Your task to perform on an android device: toggle pop-ups in chrome Image 0: 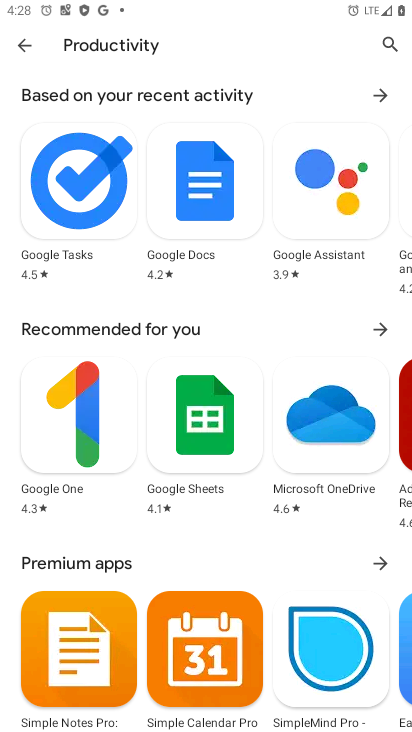
Step 0: press home button
Your task to perform on an android device: toggle pop-ups in chrome Image 1: 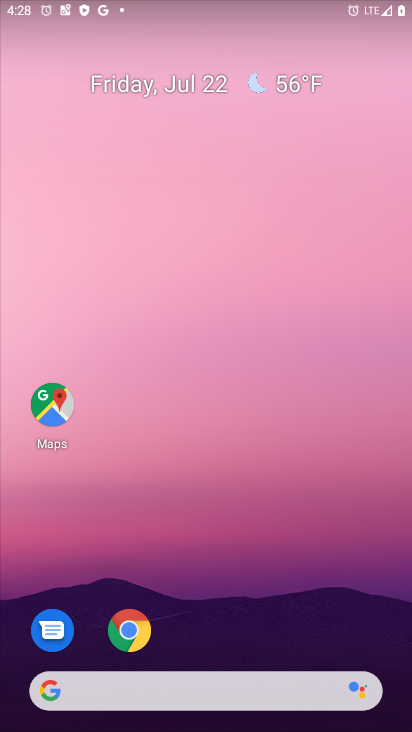
Step 1: click (118, 644)
Your task to perform on an android device: toggle pop-ups in chrome Image 2: 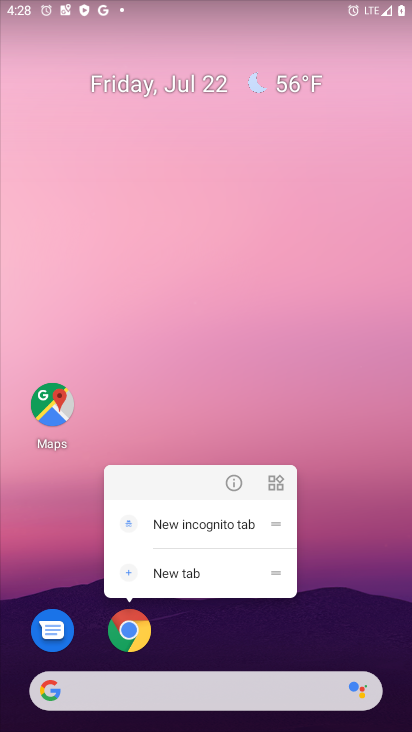
Step 2: click (125, 641)
Your task to perform on an android device: toggle pop-ups in chrome Image 3: 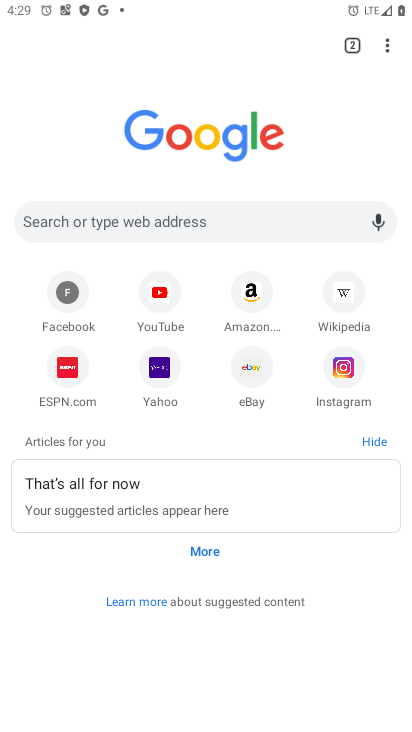
Step 3: drag from (390, 51) to (230, 383)
Your task to perform on an android device: toggle pop-ups in chrome Image 4: 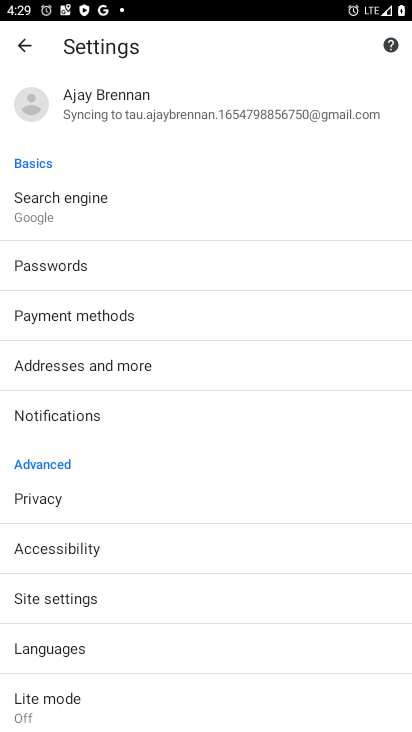
Step 4: click (86, 605)
Your task to perform on an android device: toggle pop-ups in chrome Image 5: 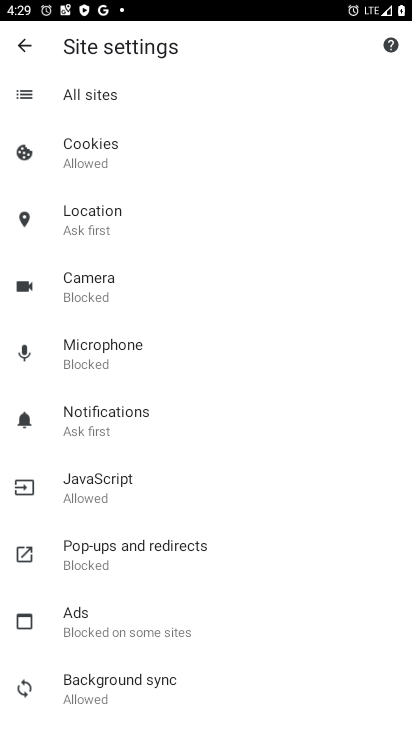
Step 5: click (119, 549)
Your task to perform on an android device: toggle pop-ups in chrome Image 6: 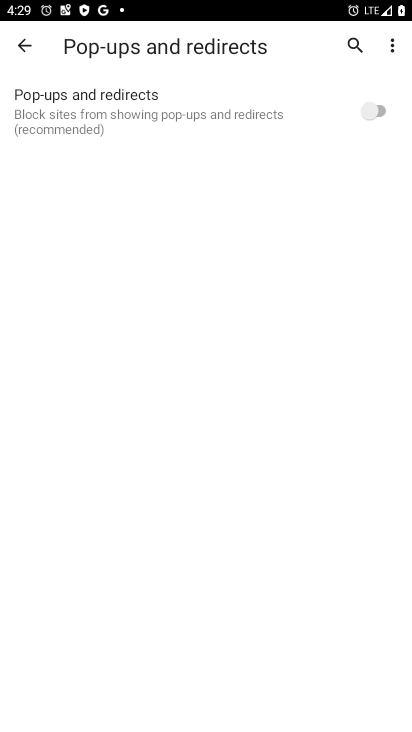
Step 6: click (385, 112)
Your task to perform on an android device: toggle pop-ups in chrome Image 7: 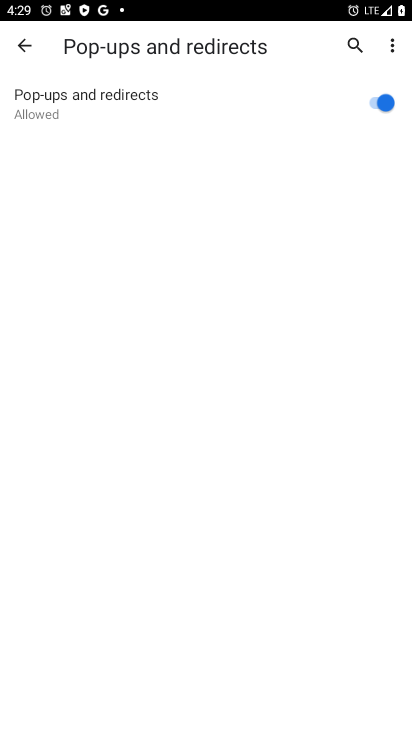
Step 7: task complete